Your task to perform on an android device: turn off data saver in the chrome app Image 0: 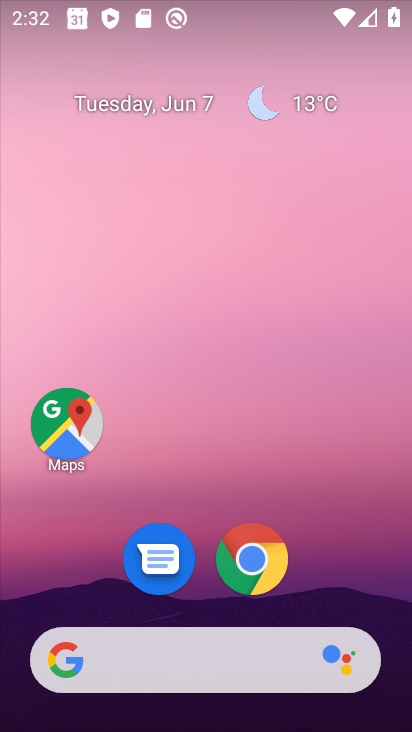
Step 0: click (251, 556)
Your task to perform on an android device: turn off data saver in the chrome app Image 1: 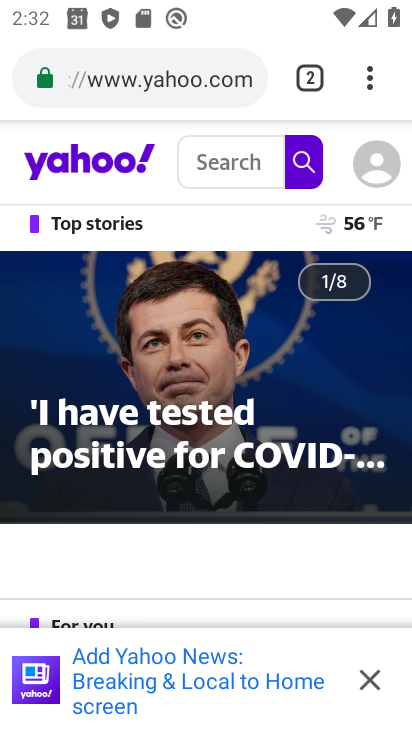
Step 1: click (367, 80)
Your task to perform on an android device: turn off data saver in the chrome app Image 2: 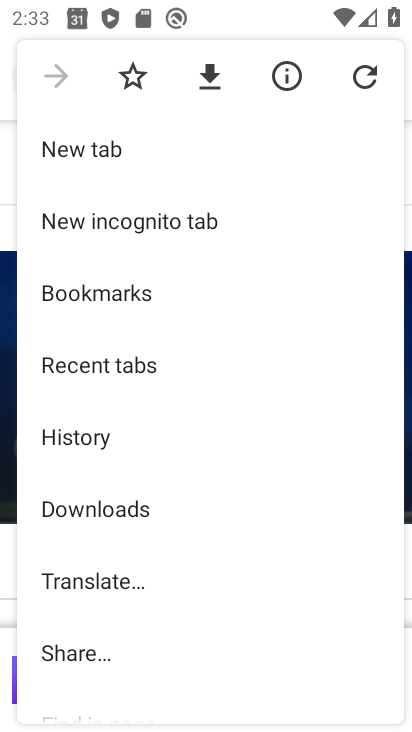
Step 2: drag from (143, 430) to (165, 283)
Your task to perform on an android device: turn off data saver in the chrome app Image 3: 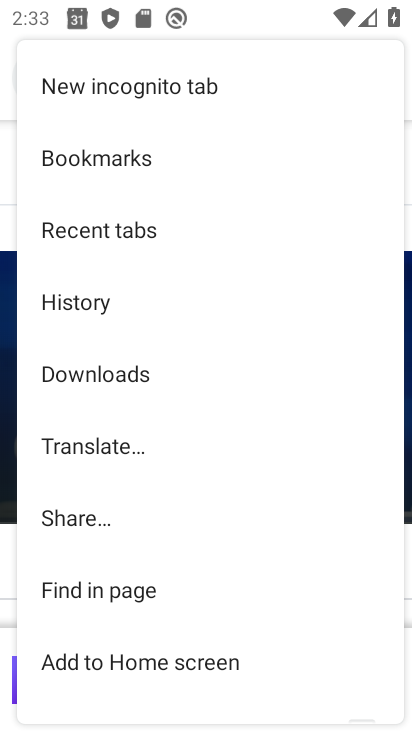
Step 3: drag from (197, 524) to (228, 302)
Your task to perform on an android device: turn off data saver in the chrome app Image 4: 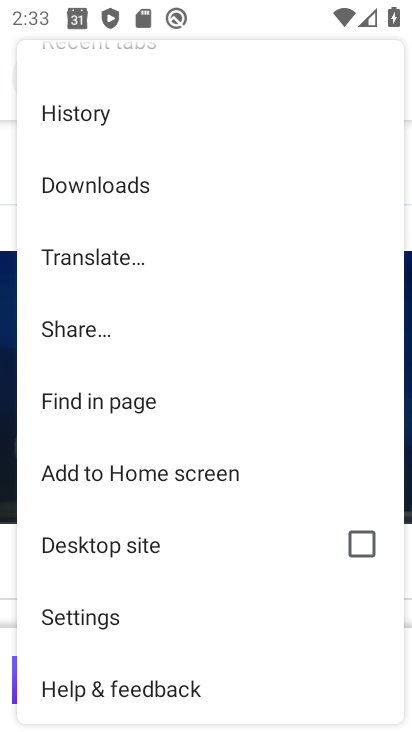
Step 4: drag from (170, 589) to (217, 432)
Your task to perform on an android device: turn off data saver in the chrome app Image 5: 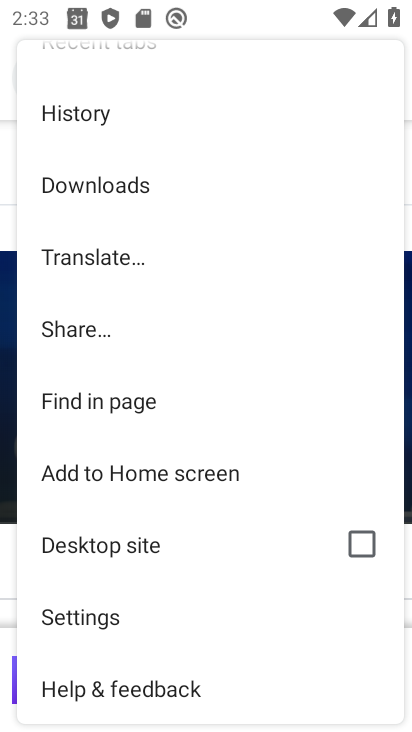
Step 5: click (86, 617)
Your task to perform on an android device: turn off data saver in the chrome app Image 6: 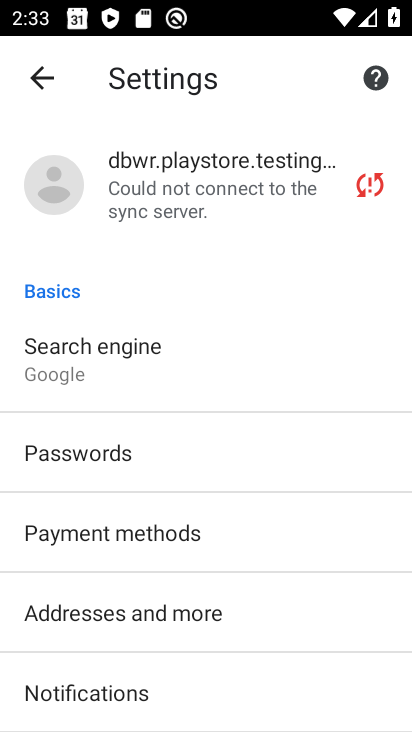
Step 6: drag from (195, 679) to (209, 480)
Your task to perform on an android device: turn off data saver in the chrome app Image 7: 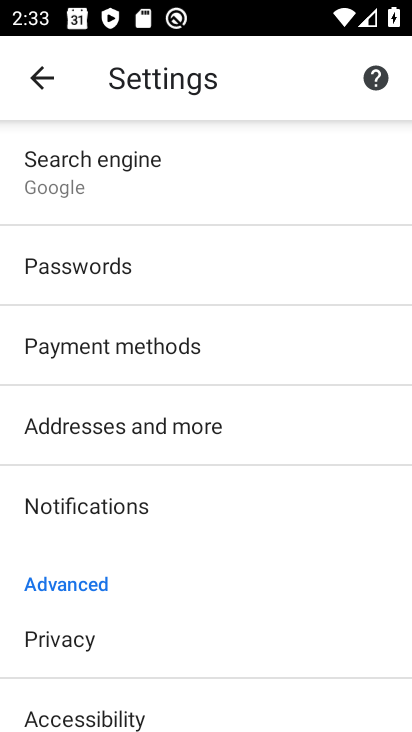
Step 7: drag from (145, 609) to (159, 465)
Your task to perform on an android device: turn off data saver in the chrome app Image 8: 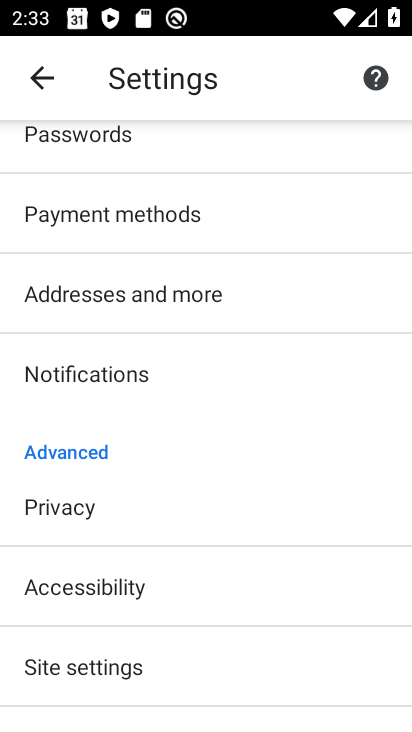
Step 8: drag from (195, 602) to (188, 469)
Your task to perform on an android device: turn off data saver in the chrome app Image 9: 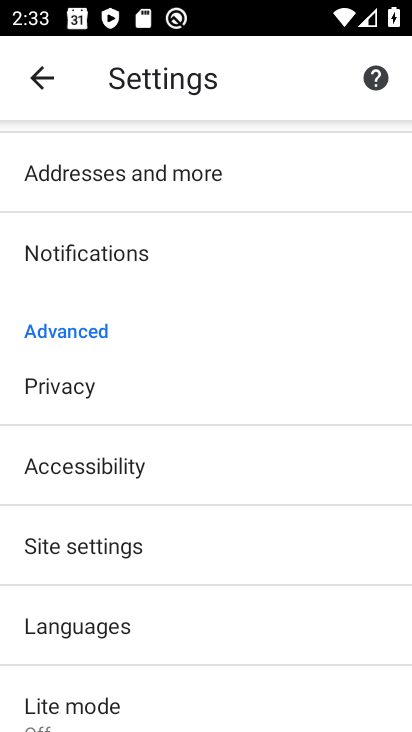
Step 9: drag from (161, 618) to (172, 471)
Your task to perform on an android device: turn off data saver in the chrome app Image 10: 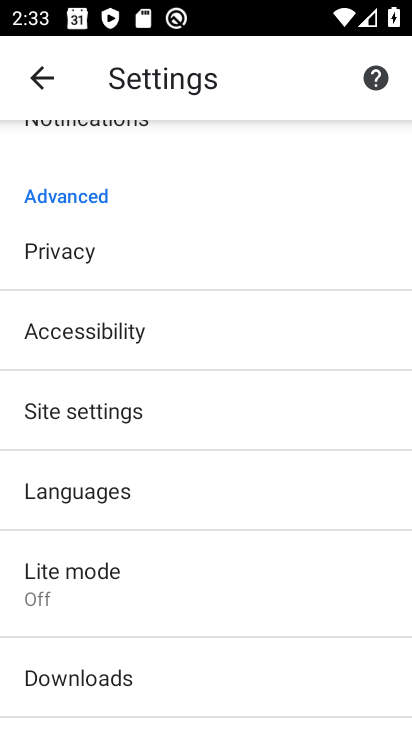
Step 10: click (95, 575)
Your task to perform on an android device: turn off data saver in the chrome app Image 11: 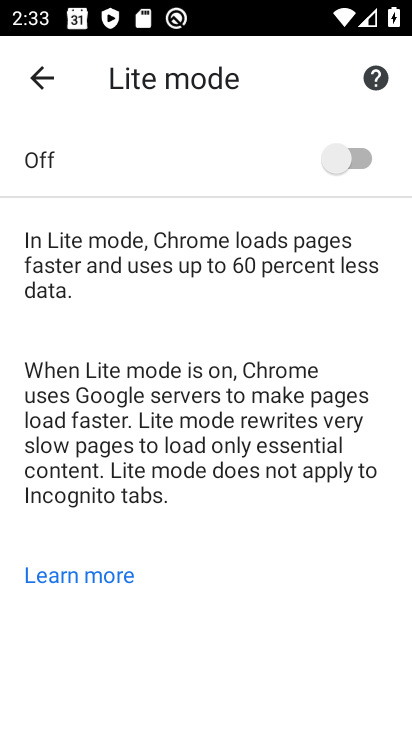
Step 11: task complete